Your task to perform on an android device: Open my contact list Image 0: 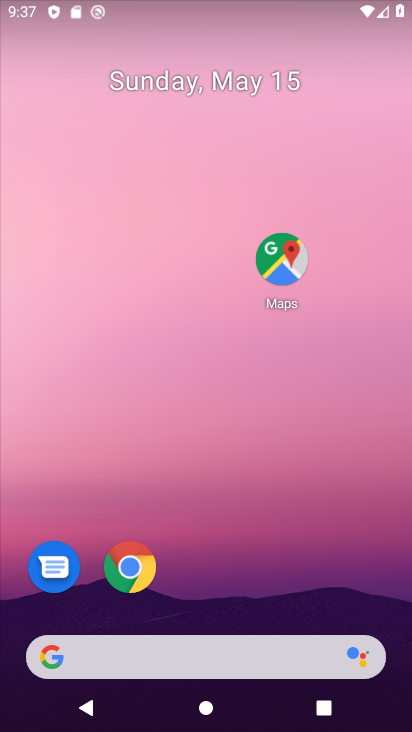
Step 0: drag from (246, 585) to (238, 75)
Your task to perform on an android device: Open my contact list Image 1: 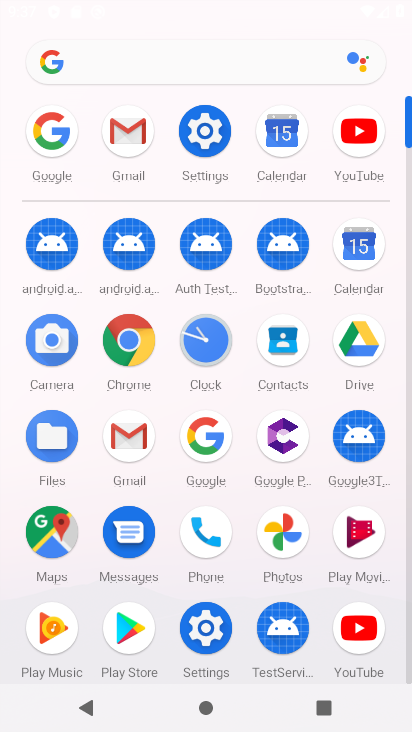
Step 1: click (282, 340)
Your task to perform on an android device: Open my contact list Image 2: 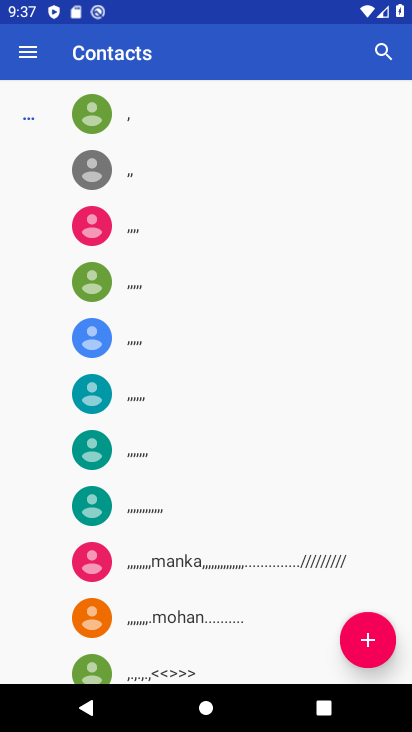
Step 2: task complete